Your task to perform on an android device: Show me productivity apps on the Play Store Image 0: 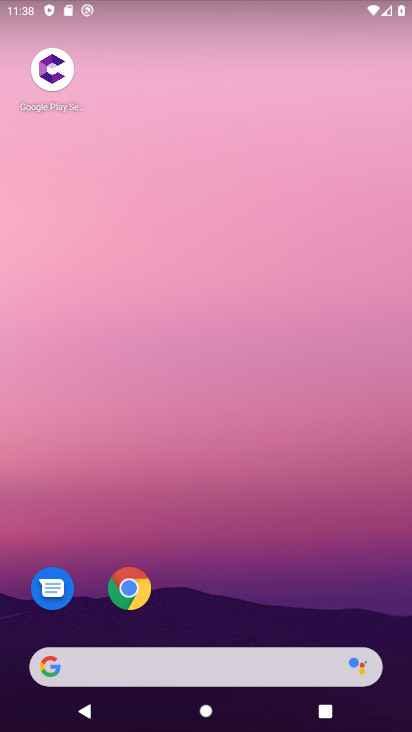
Step 0: drag from (197, 648) to (208, 101)
Your task to perform on an android device: Show me productivity apps on the Play Store Image 1: 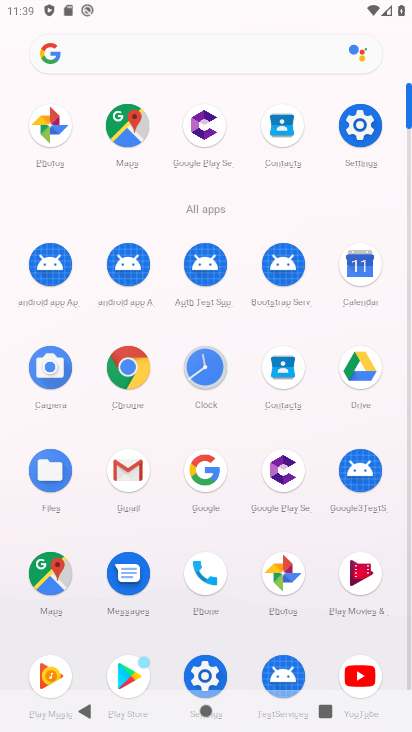
Step 1: click (118, 681)
Your task to perform on an android device: Show me productivity apps on the Play Store Image 2: 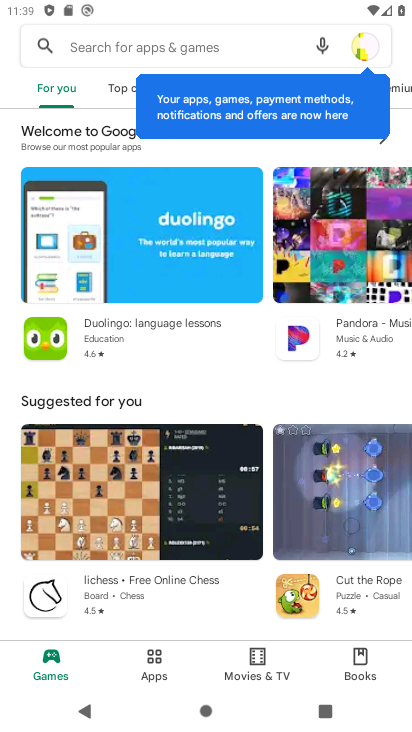
Step 2: click (158, 657)
Your task to perform on an android device: Show me productivity apps on the Play Store Image 3: 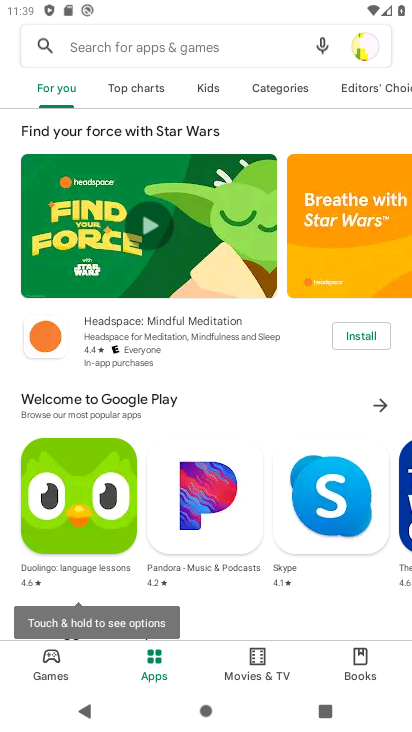
Step 3: task complete